Your task to perform on an android device: turn notification dots on Image 0: 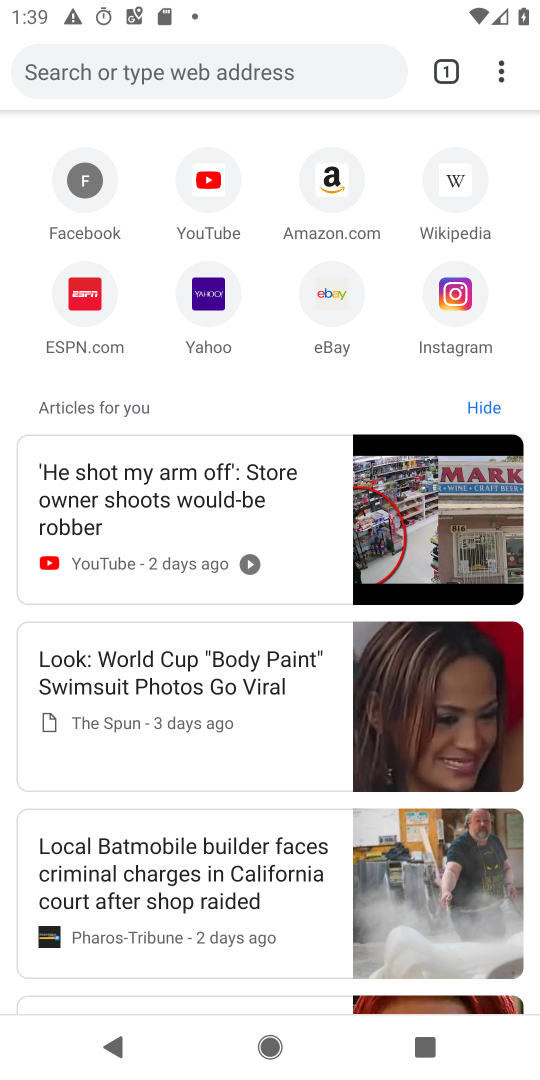
Step 0: press home button
Your task to perform on an android device: turn notification dots on Image 1: 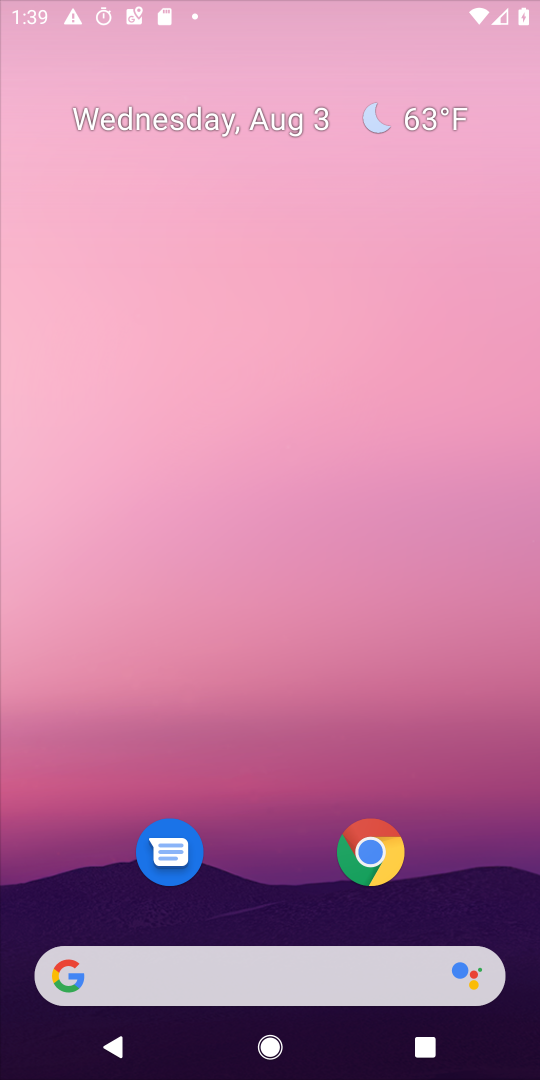
Step 1: drag from (500, 940) to (225, 36)
Your task to perform on an android device: turn notification dots on Image 2: 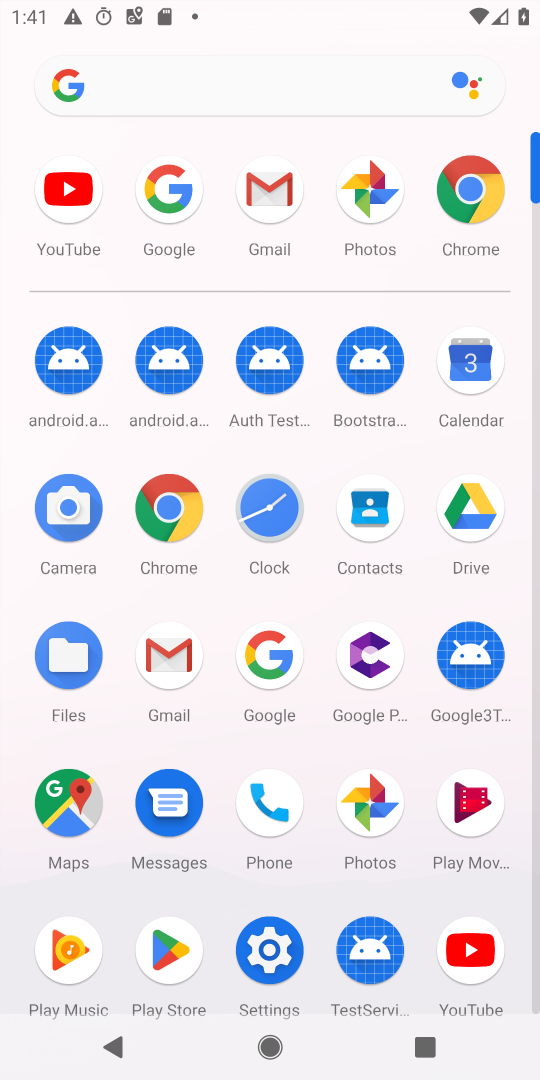
Step 2: click (233, 944)
Your task to perform on an android device: turn notification dots on Image 3: 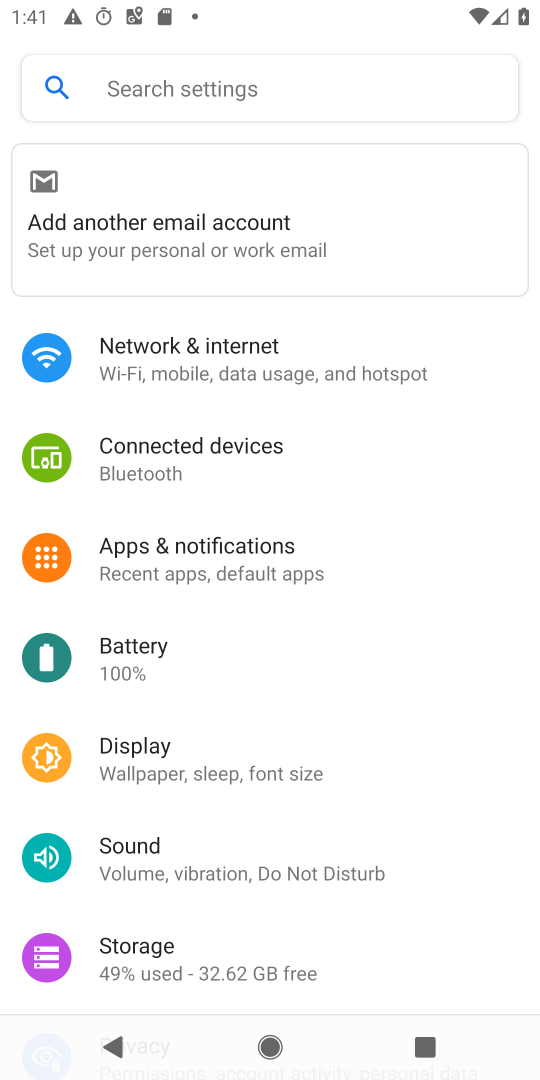
Step 3: click (241, 559)
Your task to perform on an android device: turn notification dots on Image 4: 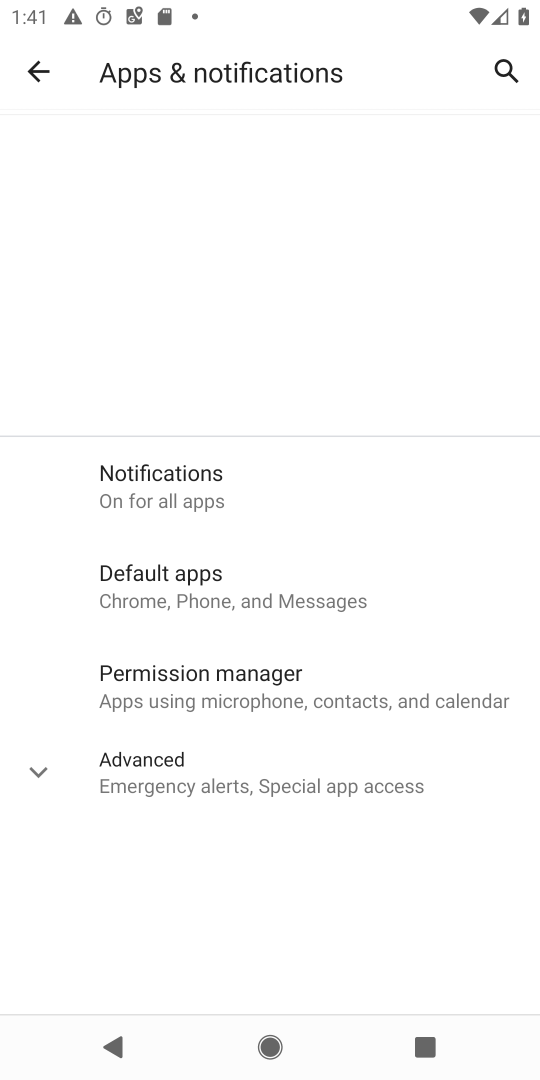
Step 4: click (164, 497)
Your task to perform on an android device: turn notification dots on Image 5: 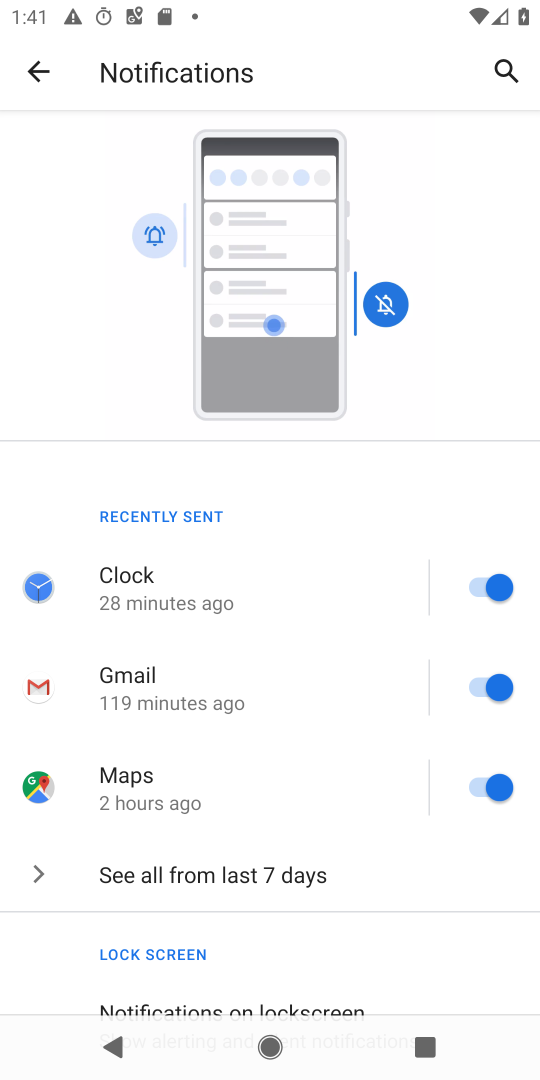
Step 5: drag from (157, 911) to (113, 153)
Your task to perform on an android device: turn notification dots on Image 6: 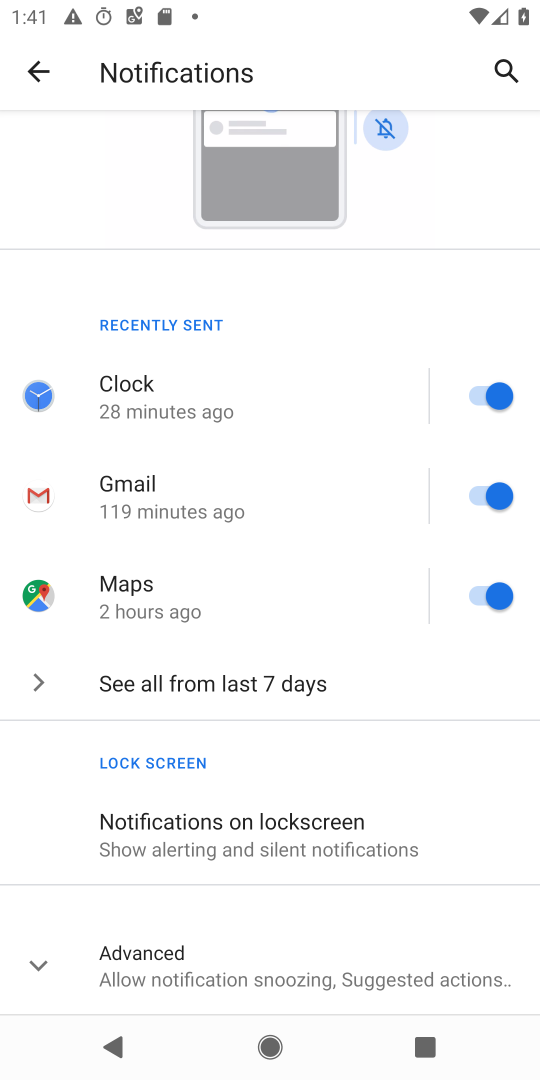
Step 6: click (65, 966)
Your task to perform on an android device: turn notification dots on Image 7: 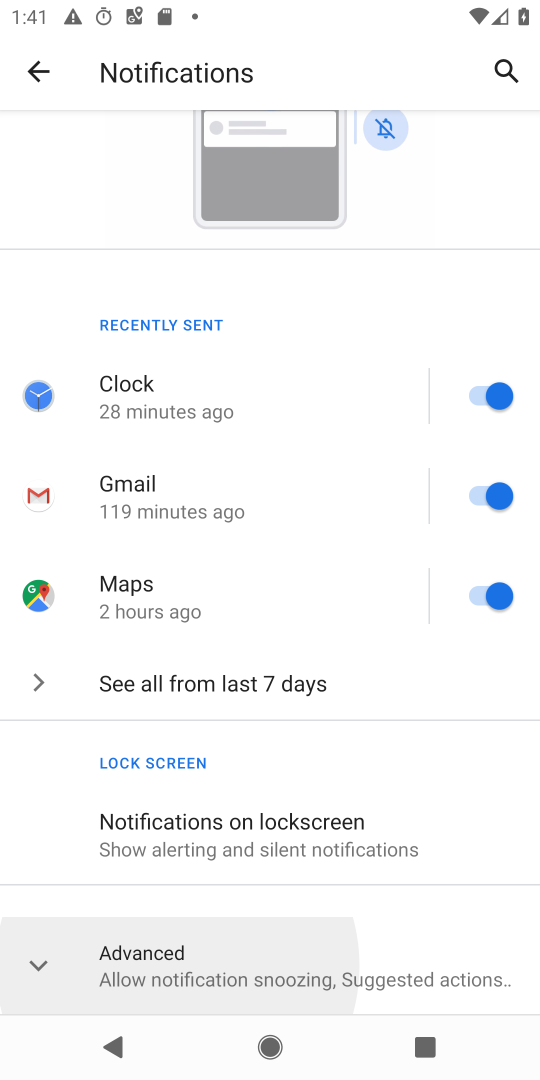
Step 7: task complete